Your task to perform on an android device: Do I have any events today? Image 0: 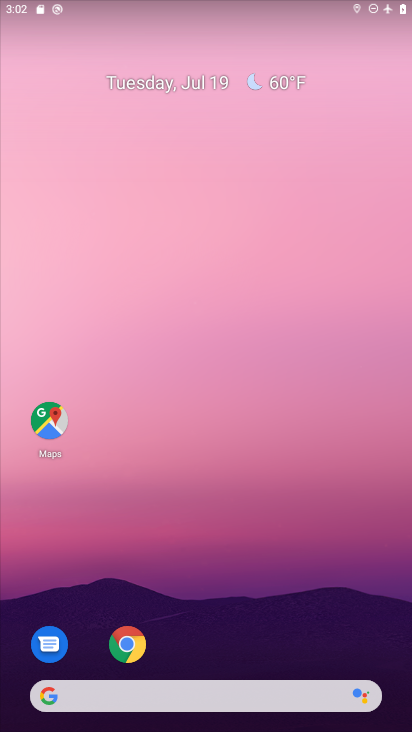
Step 0: drag from (191, 676) to (191, 92)
Your task to perform on an android device: Do I have any events today? Image 1: 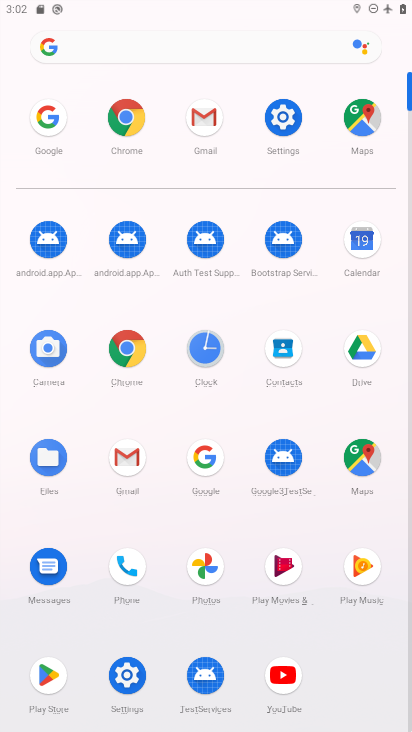
Step 1: click (408, 253)
Your task to perform on an android device: Do I have any events today? Image 2: 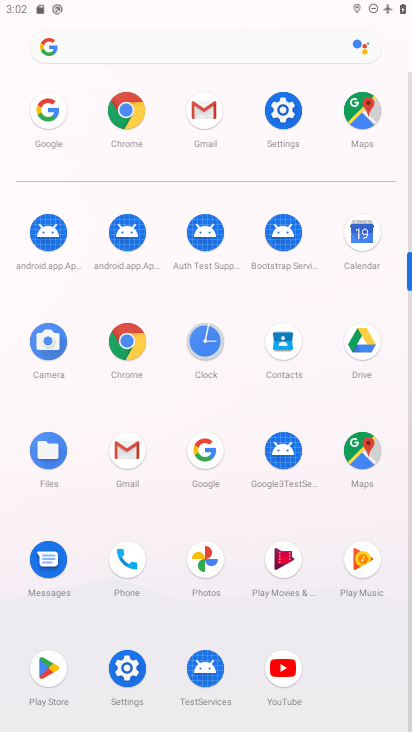
Step 2: click (369, 245)
Your task to perform on an android device: Do I have any events today? Image 3: 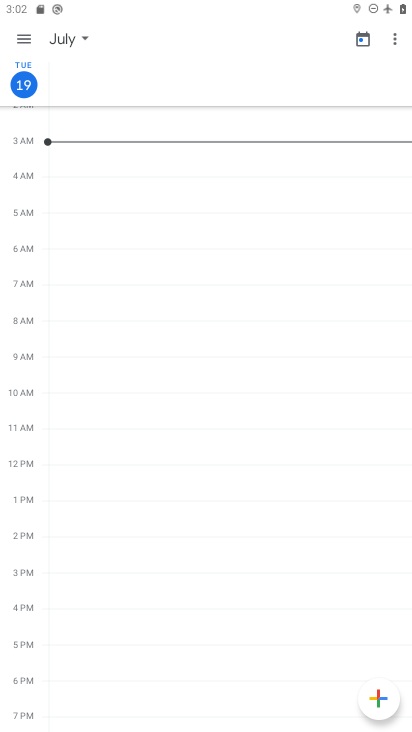
Step 3: click (19, 84)
Your task to perform on an android device: Do I have any events today? Image 4: 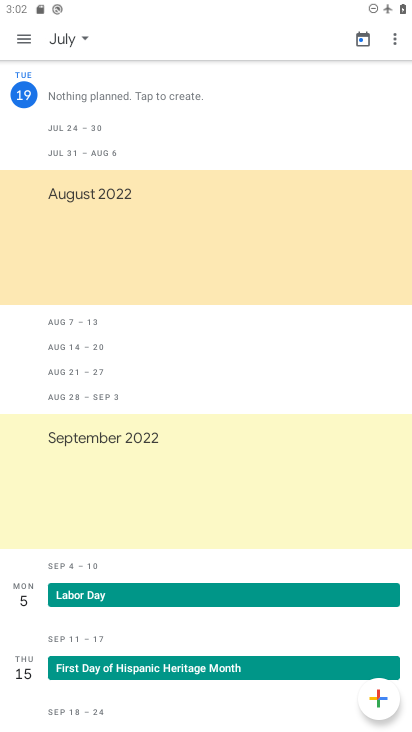
Step 4: click (34, 91)
Your task to perform on an android device: Do I have any events today? Image 5: 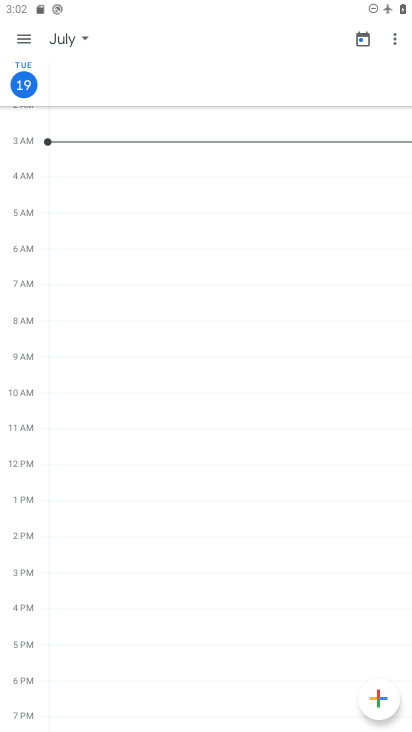
Step 5: task complete